Your task to perform on an android device: turn off priority inbox in the gmail app Image 0: 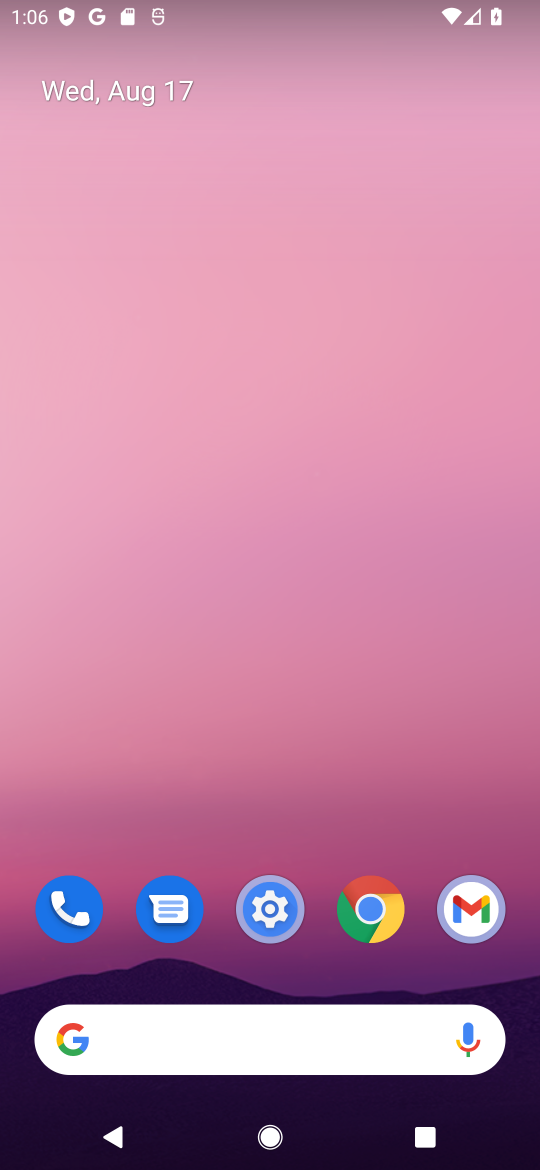
Step 0: click (471, 912)
Your task to perform on an android device: turn off priority inbox in the gmail app Image 1: 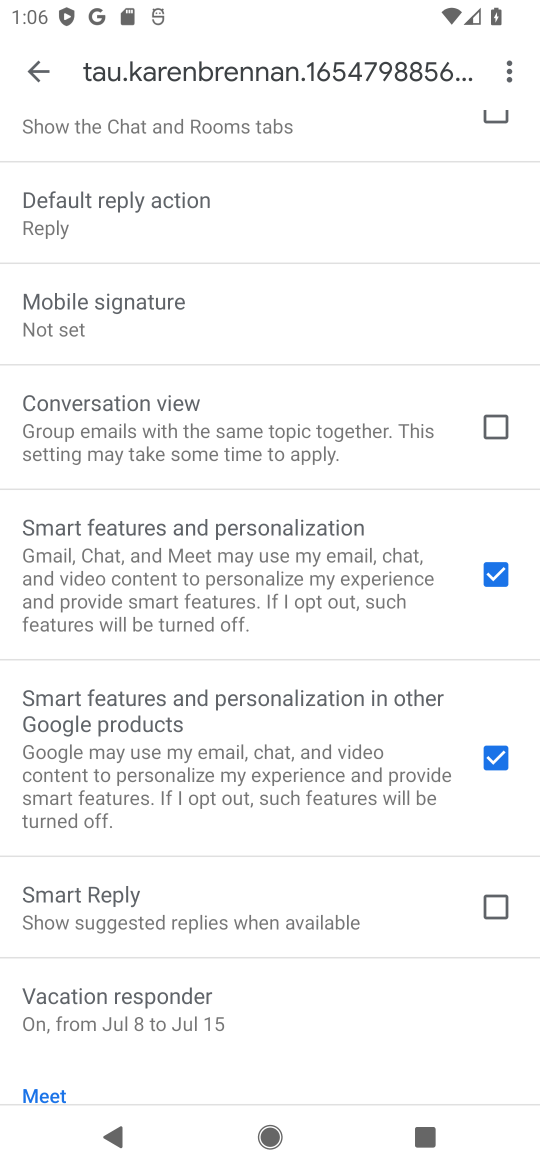
Step 1: drag from (189, 186) to (255, 891)
Your task to perform on an android device: turn off priority inbox in the gmail app Image 2: 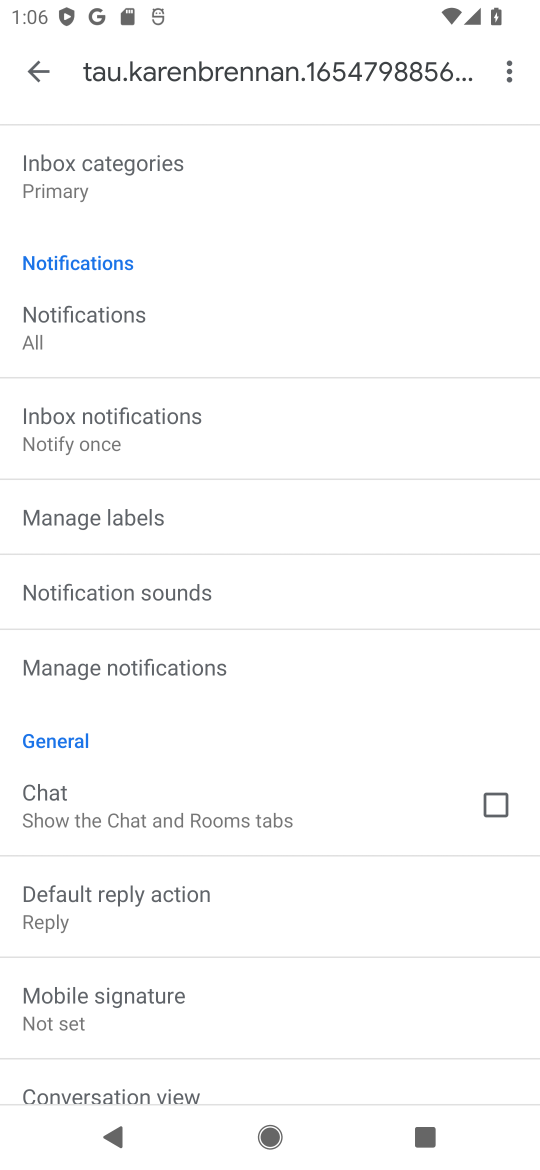
Step 2: drag from (264, 362) to (269, 803)
Your task to perform on an android device: turn off priority inbox in the gmail app Image 3: 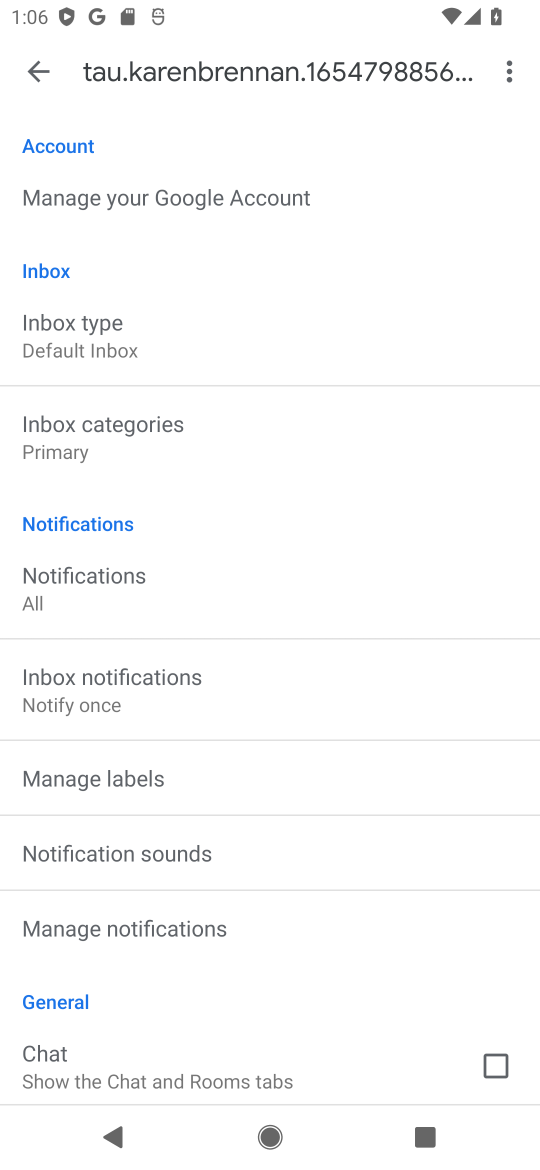
Step 3: click (90, 314)
Your task to perform on an android device: turn off priority inbox in the gmail app Image 4: 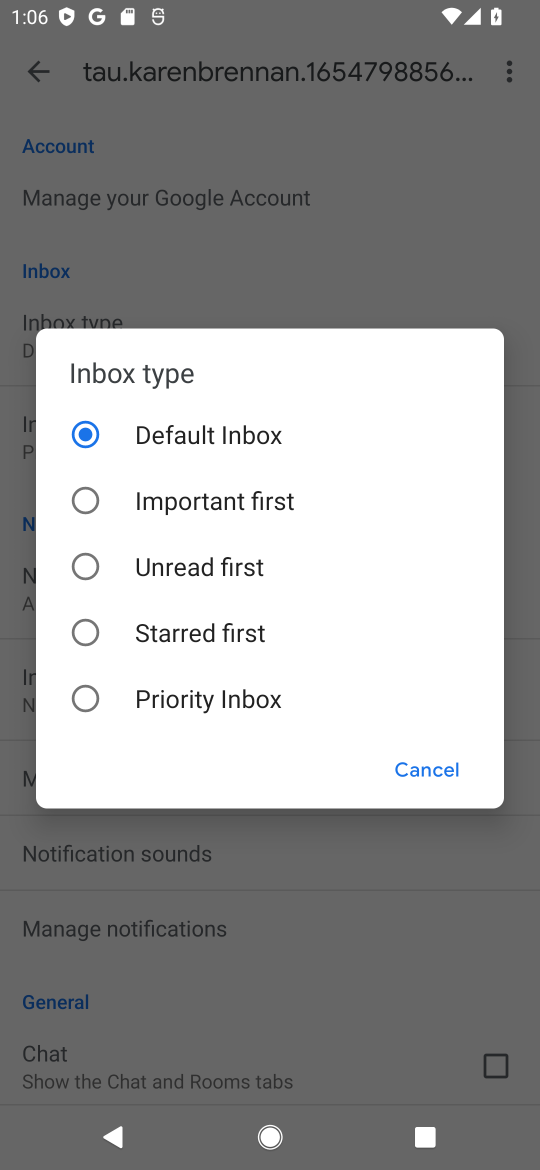
Step 4: task complete